Your task to perform on an android device: check google app version Image 0: 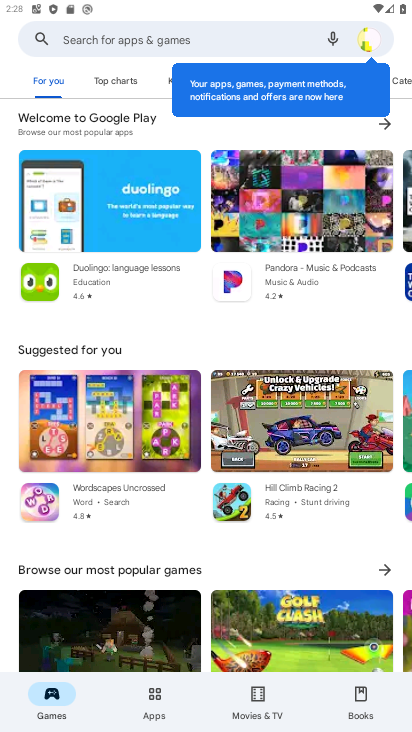
Step 0: press home button
Your task to perform on an android device: check google app version Image 1: 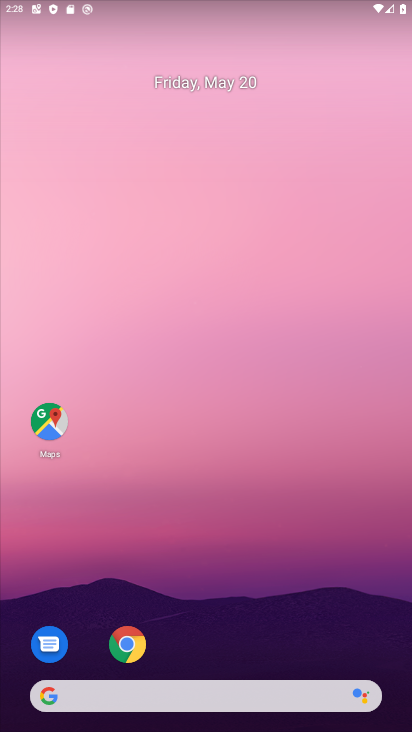
Step 1: drag from (345, 533) to (224, 6)
Your task to perform on an android device: check google app version Image 2: 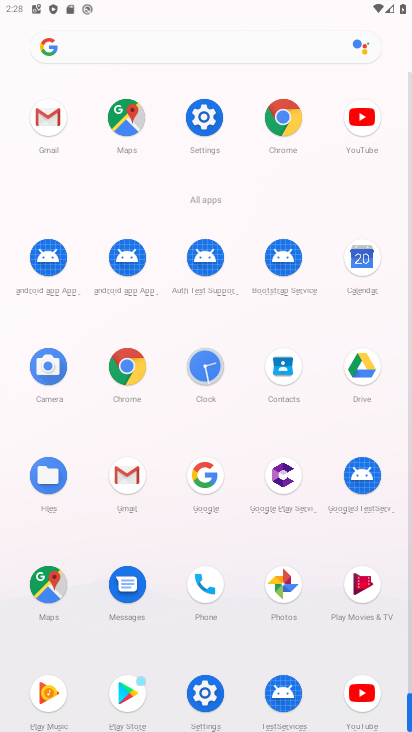
Step 2: click (206, 480)
Your task to perform on an android device: check google app version Image 3: 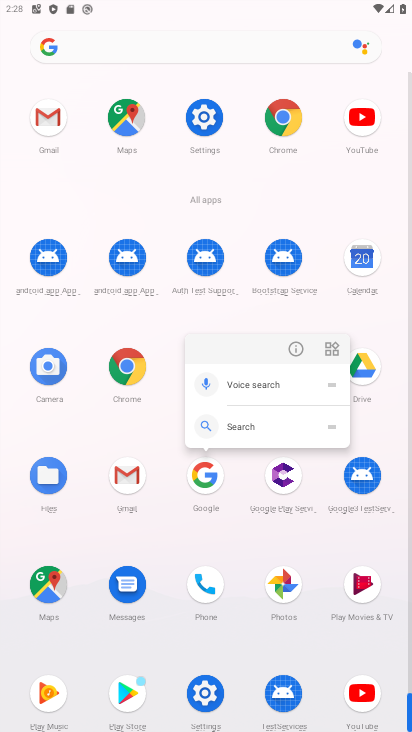
Step 3: click (299, 348)
Your task to perform on an android device: check google app version Image 4: 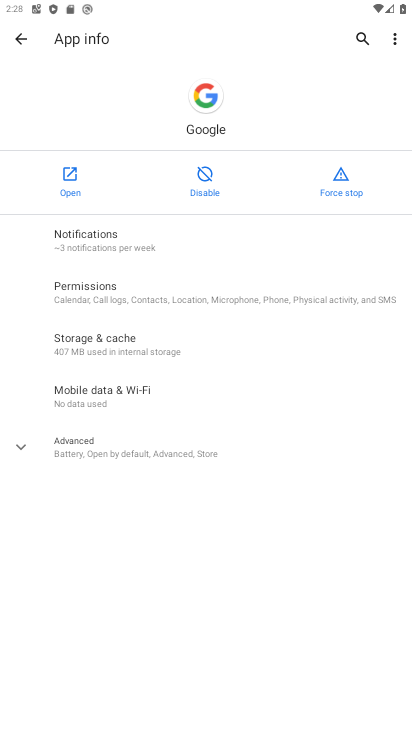
Step 4: click (116, 451)
Your task to perform on an android device: check google app version Image 5: 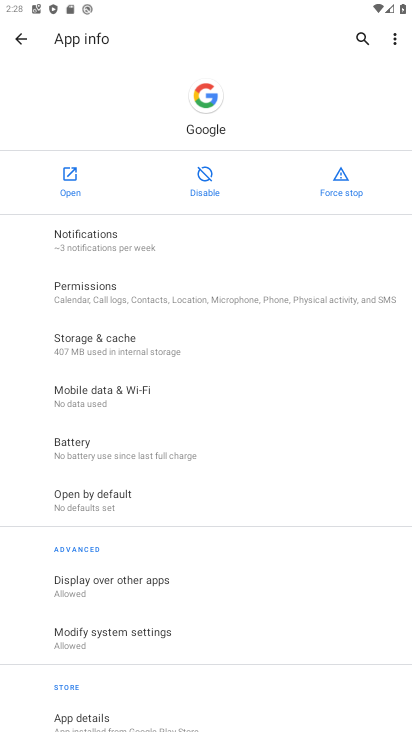
Step 5: task complete